Your task to perform on an android device: Open Yahoo.com Image 0: 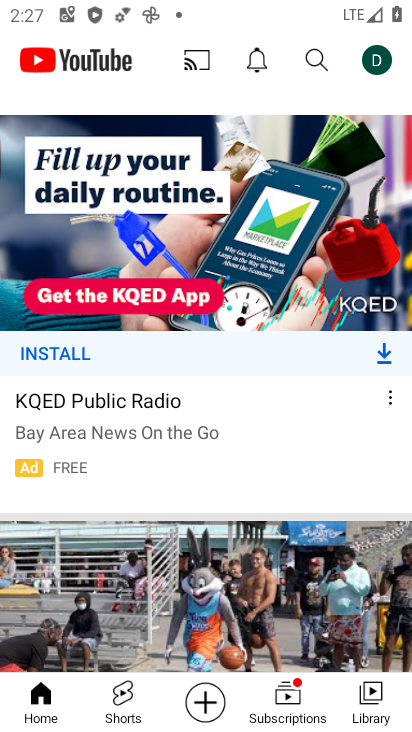
Step 0: press home button
Your task to perform on an android device: Open Yahoo.com Image 1: 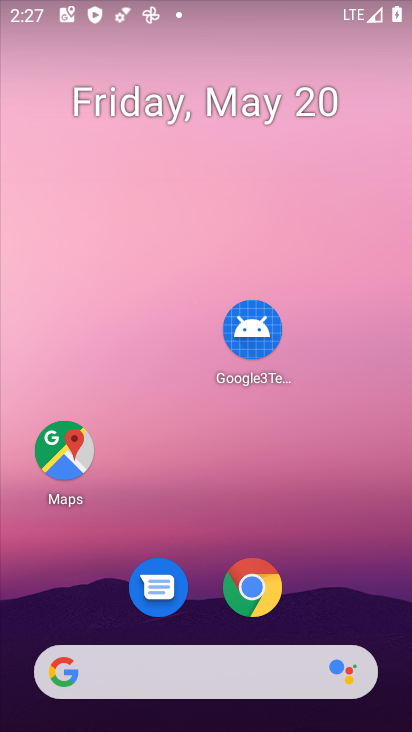
Step 1: click (254, 580)
Your task to perform on an android device: Open Yahoo.com Image 2: 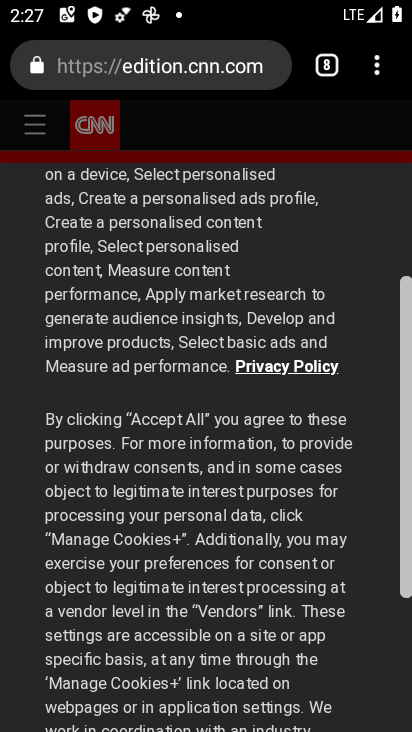
Step 2: click (379, 62)
Your task to perform on an android device: Open Yahoo.com Image 3: 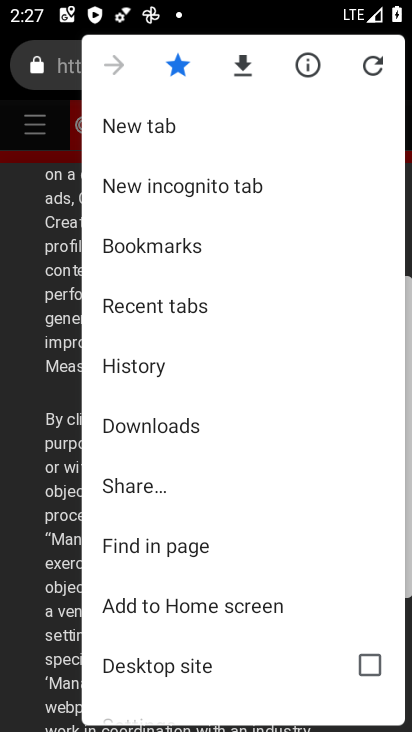
Step 3: click (147, 125)
Your task to perform on an android device: Open Yahoo.com Image 4: 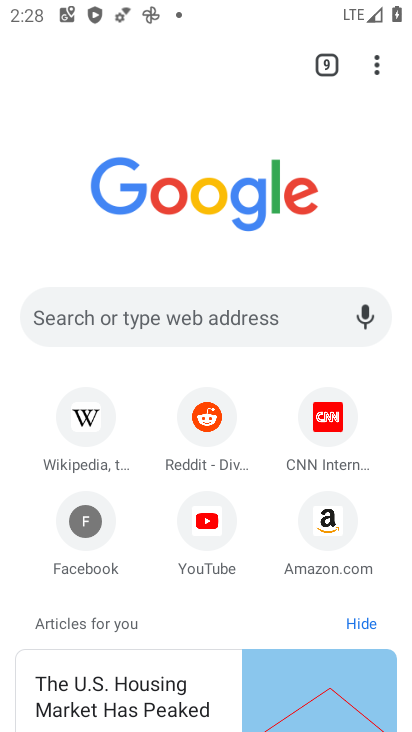
Step 4: click (156, 322)
Your task to perform on an android device: Open Yahoo.com Image 5: 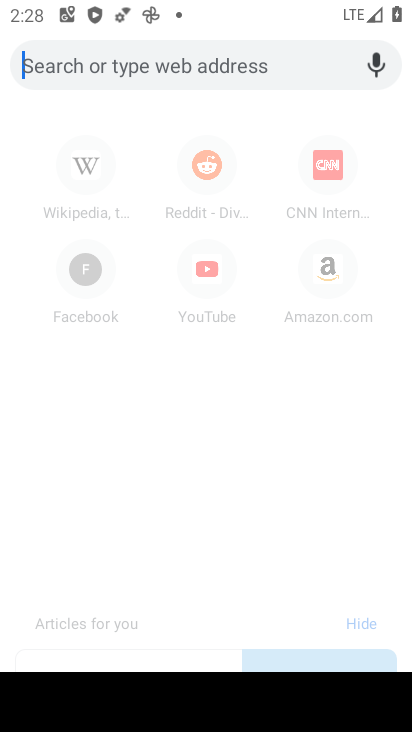
Step 5: type "yahoo.com"
Your task to perform on an android device: Open Yahoo.com Image 6: 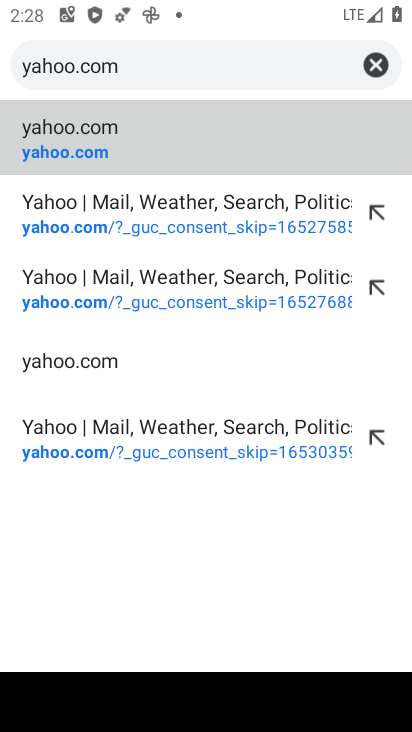
Step 6: click (83, 129)
Your task to perform on an android device: Open Yahoo.com Image 7: 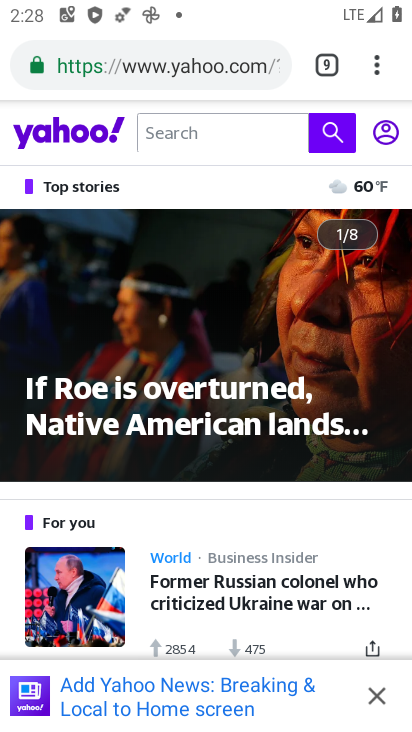
Step 7: task complete